Your task to perform on an android device: Go to privacy settings Image 0: 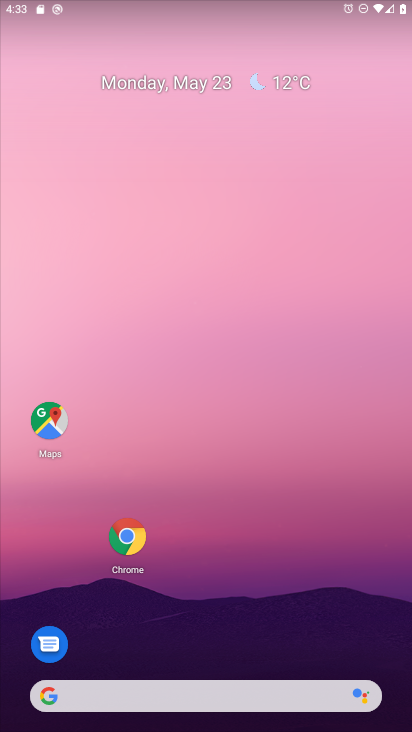
Step 0: drag from (257, 537) to (267, 93)
Your task to perform on an android device: Go to privacy settings Image 1: 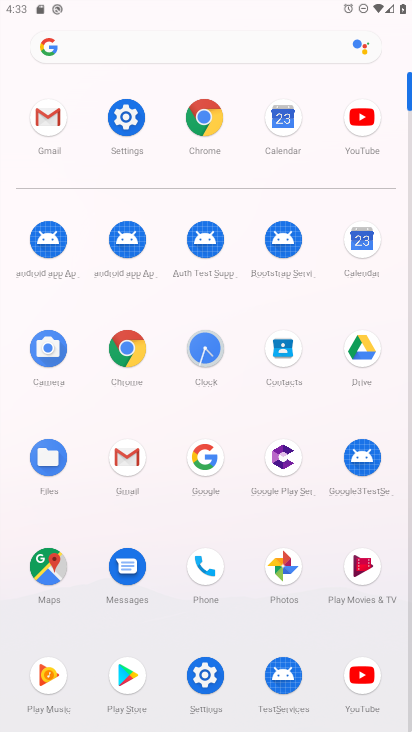
Step 1: click (122, 110)
Your task to perform on an android device: Go to privacy settings Image 2: 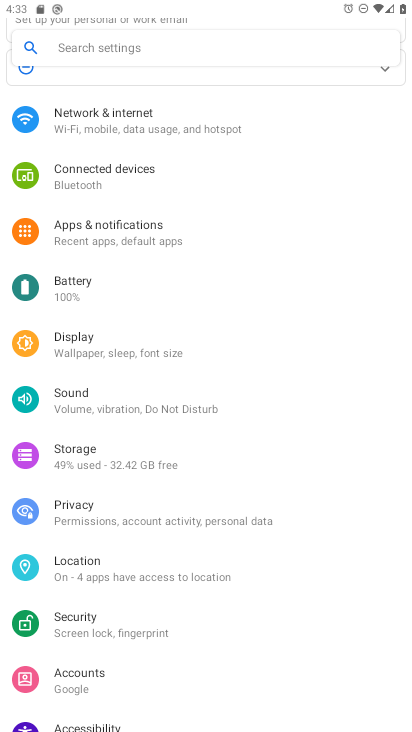
Step 2: drag from (153, 602) to (203, 324)
Your task to perform on an android device: Go to privacy settings Image 3: 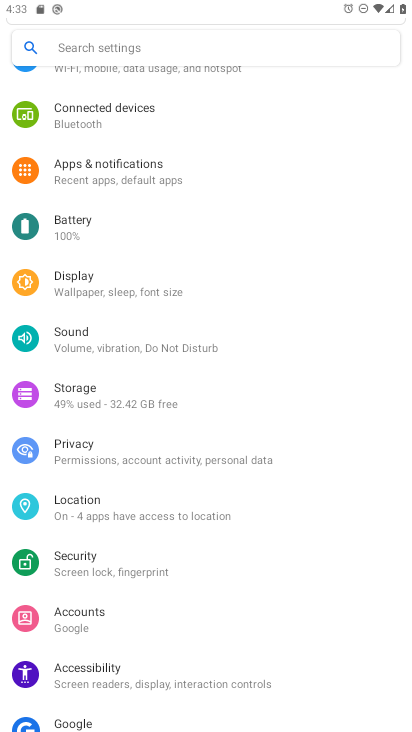
Step 3: click (91, 461)
Your task to perform on an android device: Go to privacy settings Image 4: 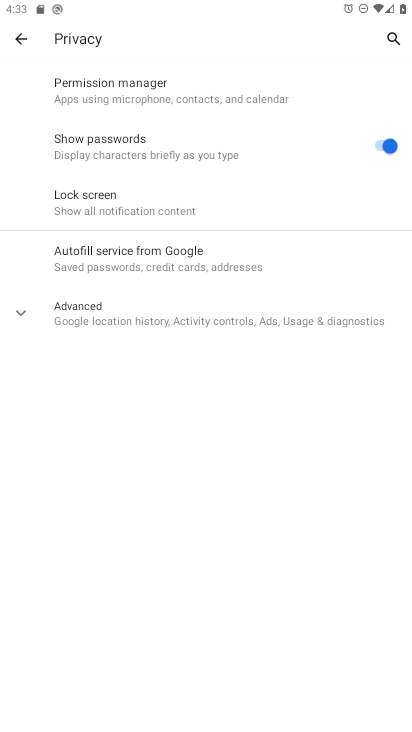
Step 4: task complete